Your task to perform on an android device: add a contact in the contacts app Image 0: 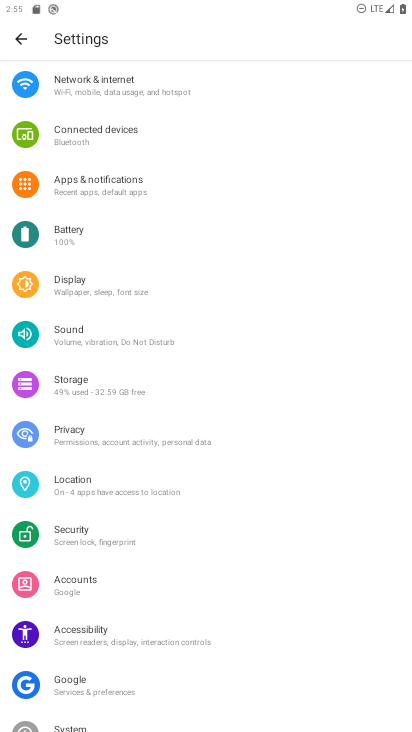
Step 0: press home button
Your task to perform on an android device: add a contact in the contacts app Image 1: 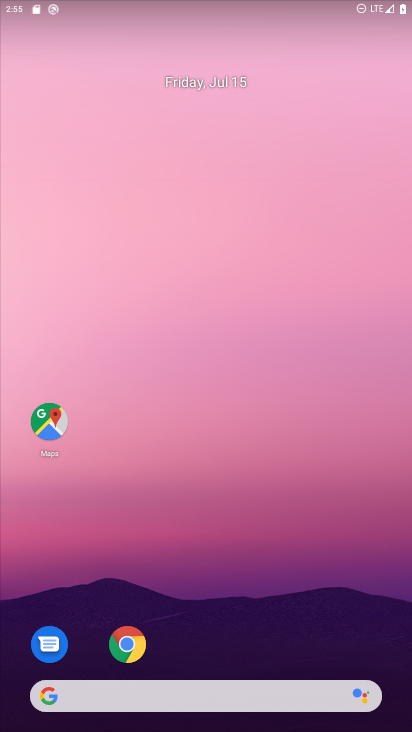
Step 1: drag from (43, 642) to (283, 166)
Your task to perform on an android device: add a contact in the contacts app Image 2: 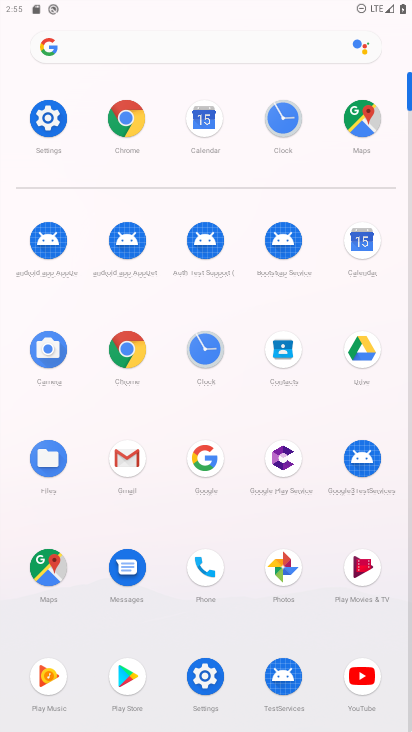
Step 2: click (223, 560)
Your task to perform on an android device: add a contact in the contacts app Image 3: 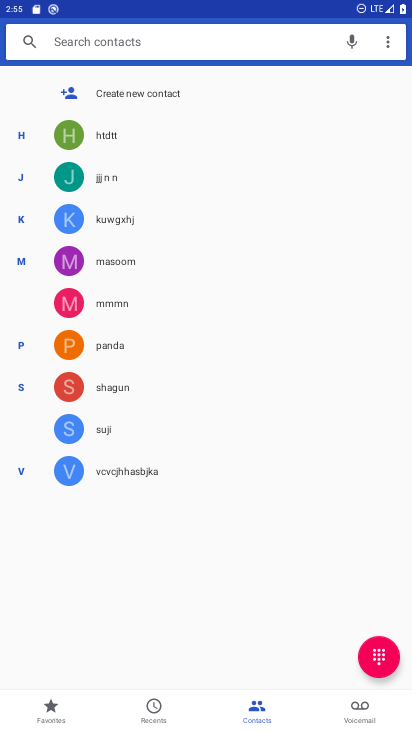
Step 3: click (194, 101)
Your task to perform on an android device: add a contact in the contacts app Image 4: 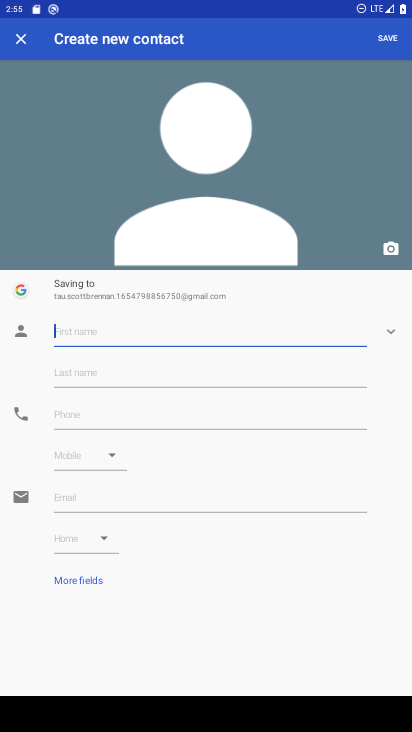
Step 4: click (228, 335)
Your task to perform on an android device: add a contact in the contacts app Image 5: 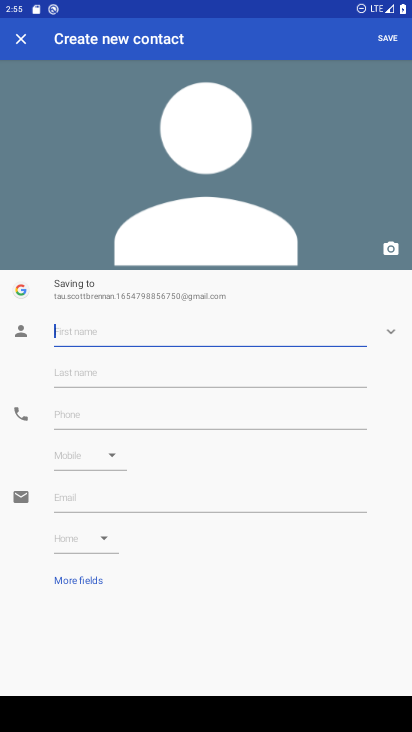
Step 5: type "ftjvgmncg"
Your task to perform on an android device: add a contact in the contacts app Image 6: 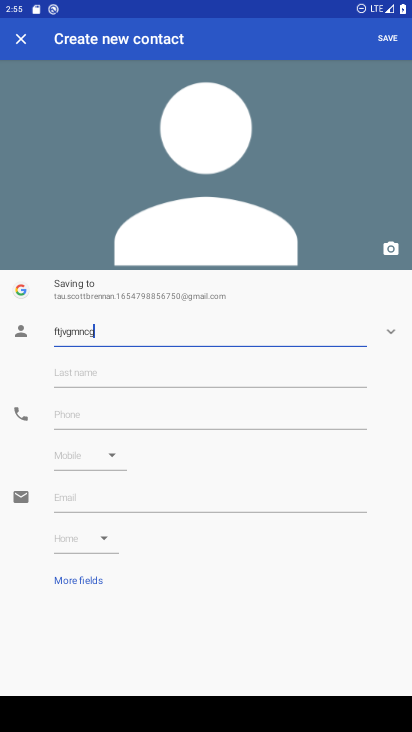
Step 6: click (378, 40)
Your task to perform on an android device: add a contact in the contacts app Image 7: 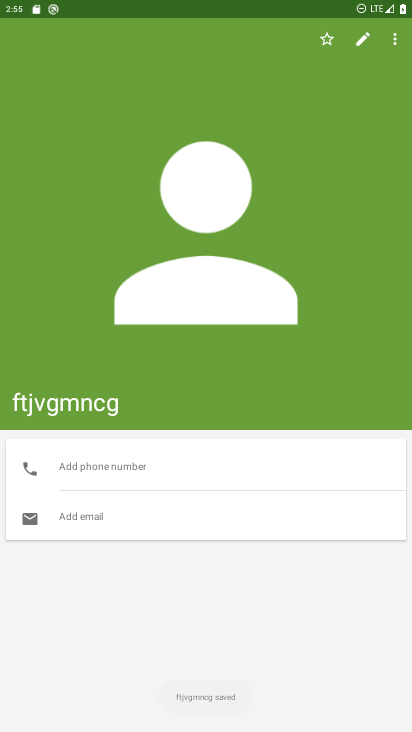
Step 7: task complete